Your task to perform on an android device: Open maps Image 0: 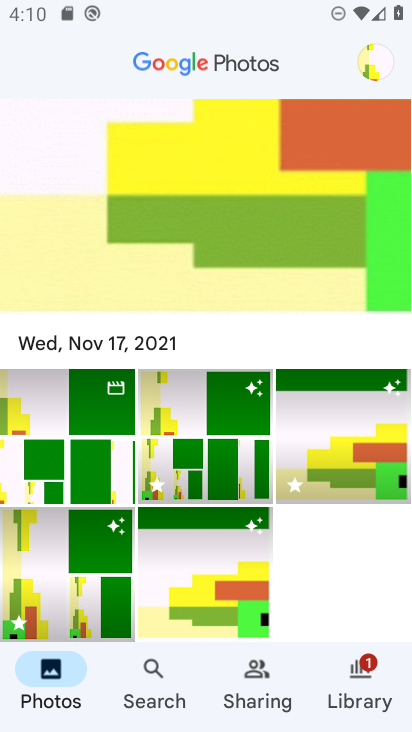
Step 0: press back button
Your task to perform on an android device: Open maps Image 1: 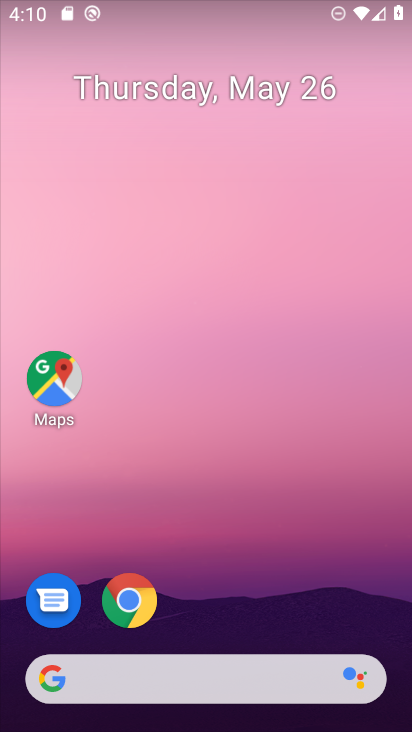
Step 1: drag from (208, 620) to (215, 64)
Your task to perform on an android device: Open maps Image 2: 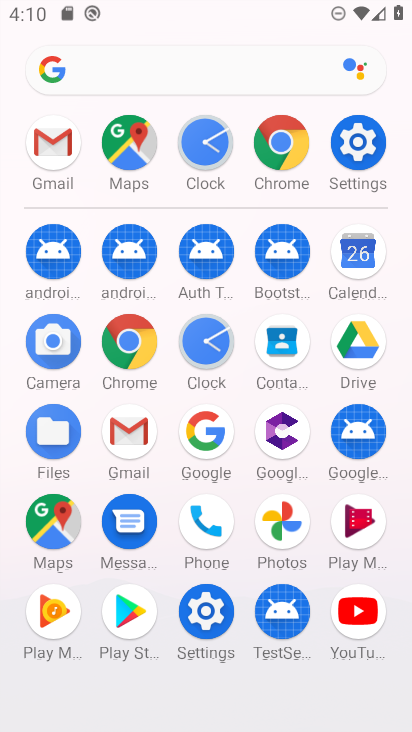
Step 2: click (125, 141)
Your task to perform on an android device: Open maps Image 3: 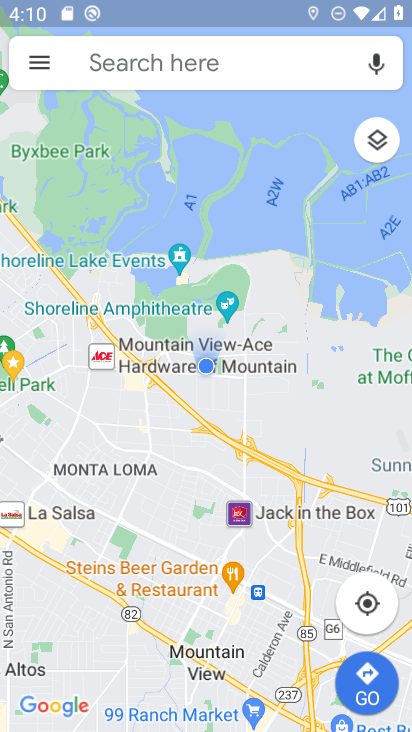
Step 3: task complete